Your task to perform on an android device: Open eBay Image 0: 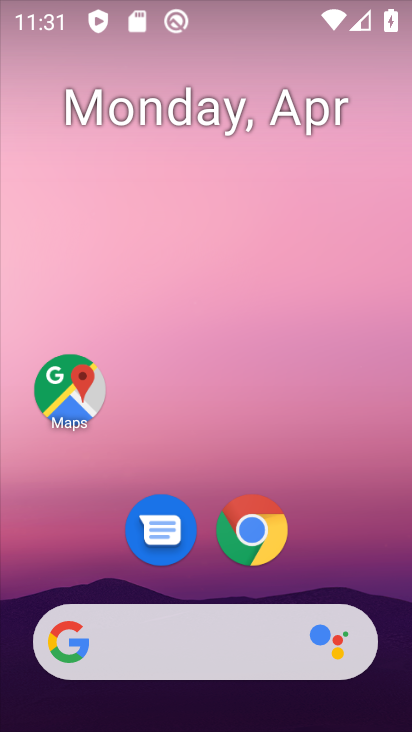
Step 0: click (248, 524)
Your task to perform on an android device: Open eBay Image 1: 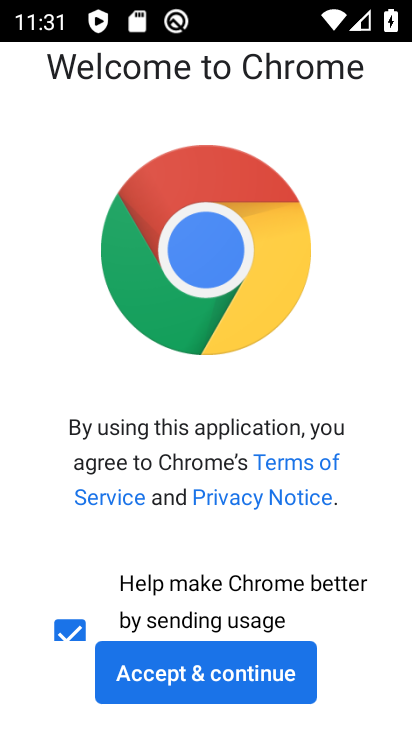
Step 1: click (229, 693)
Your task to perform on an android device: Open eBay Image 2: 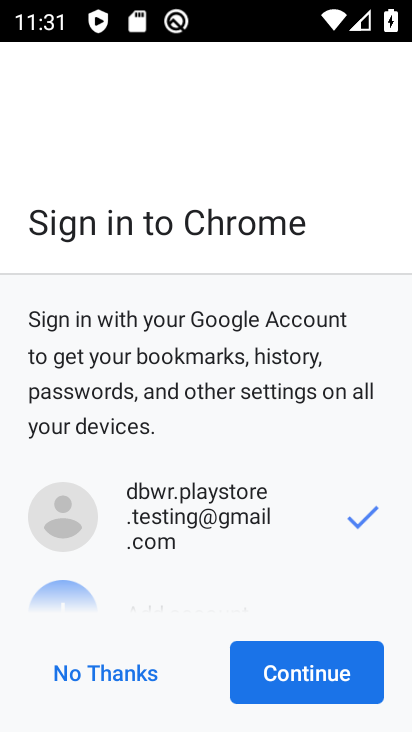
Step 2: click (315, 658)
Your task to perform on an android device: Open eBay Image 3: 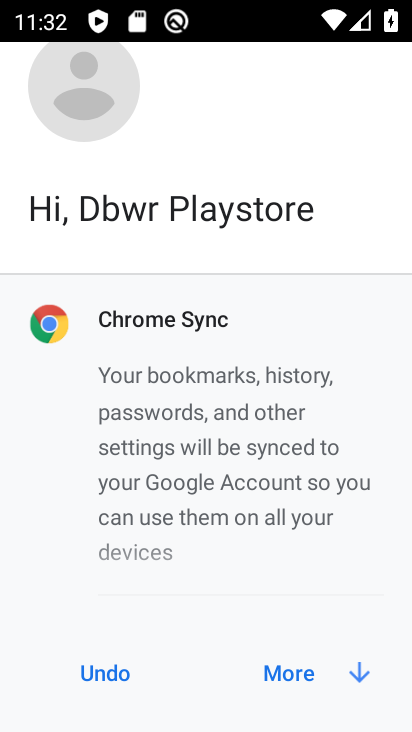
Step 3: click (299, 667)
Your task to perform on an android device: Open eBay Image 4: 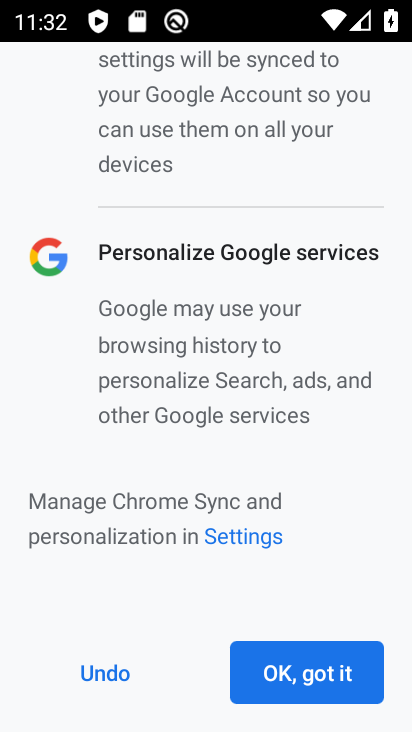
Step 4: click (309, 663)
Your task to perform on an android device: Open eBay Image 5: 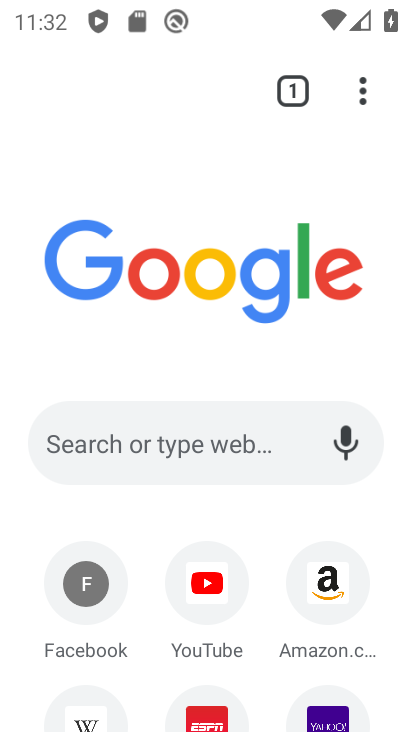
Step 5: click (174, 449)
Your task to perform on an android device: Open eBay Image 6: 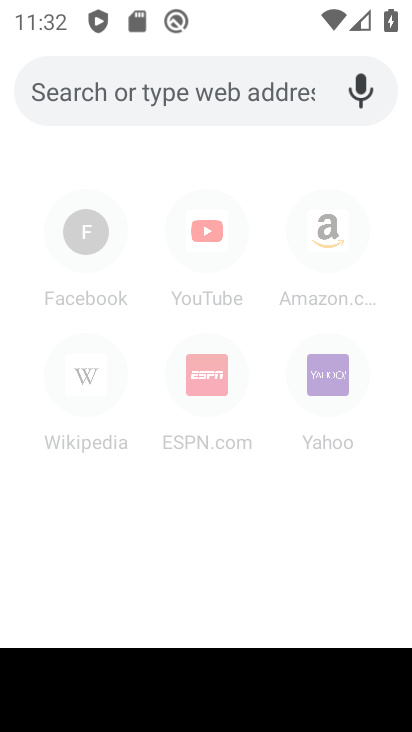
Step 6: type "eBay"
Your task to perform on an android device: Open eBay Image 7: 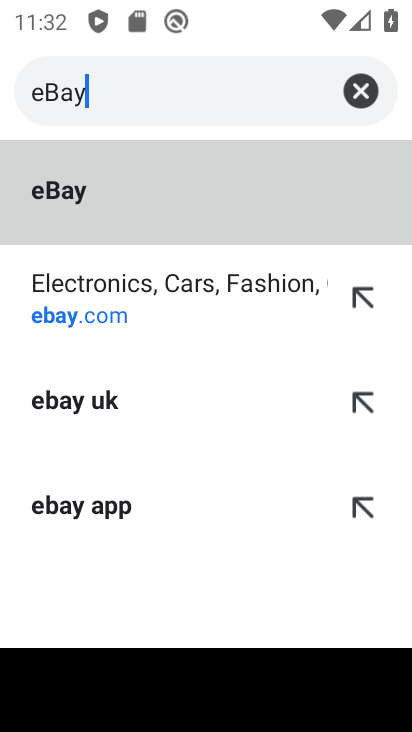
Step 7: click (181, 200)
Your task to perform on an android device: Open eBay Image 8: 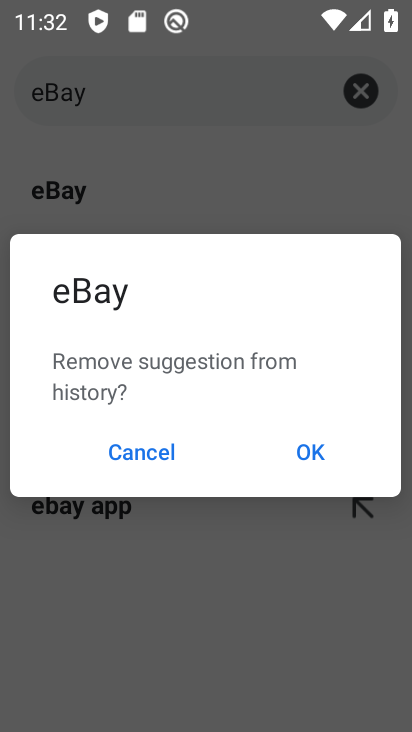
Step 8: click (160, 453)
Your task to perform on an android device: Open eBay Image 9: 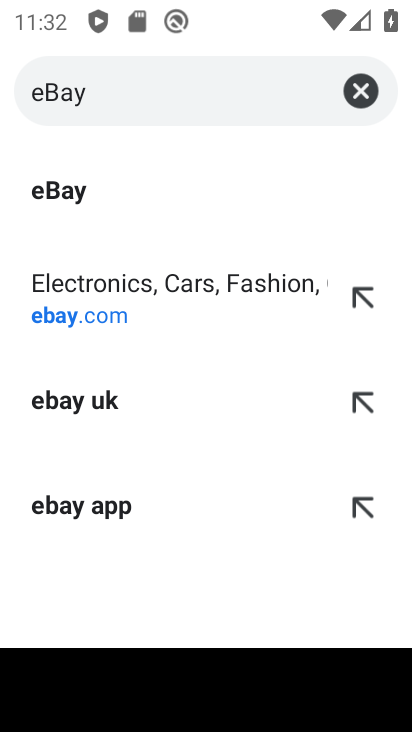
Step 9: click (111, 310)
Your task to perform on an android device: Open eBay Image 10: 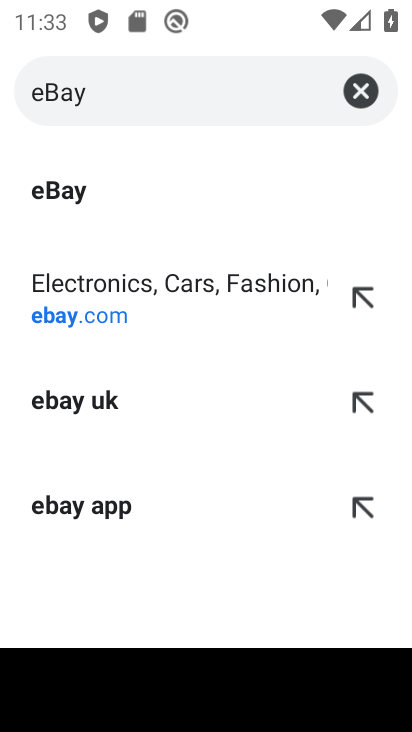
Step 10: click (151, 310)
Your task to perform on an android device: Open eBay Image 11: 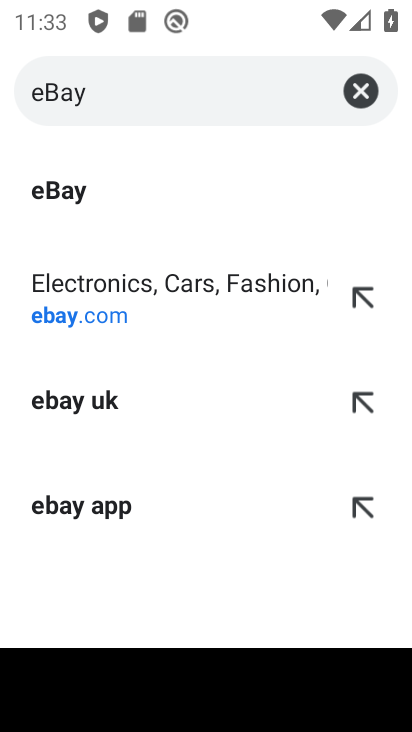
Step 11: task complete